Your task to perform on an android device: Show me popular games on the Play Store Image 0: 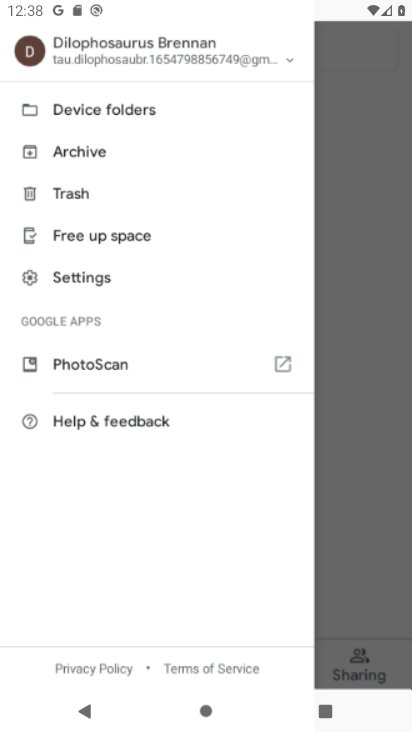
Step 0: drag from (395, 715) to (264, 130)
Your task to perform on an android device: Show me popular games on the Play Store Image 1: 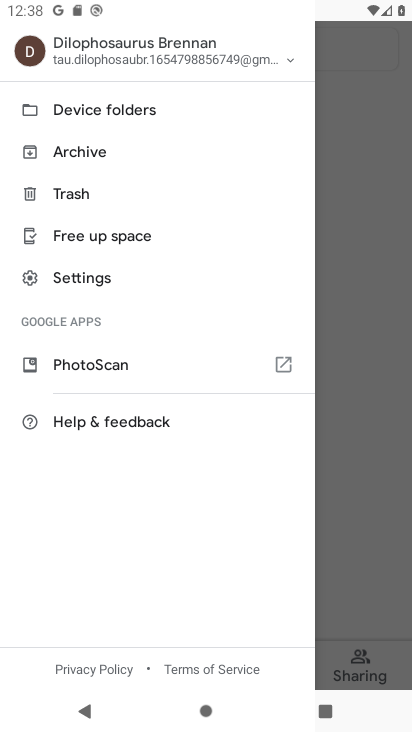
Step 1: press home button
Your task to perform on an android device: Show me popular games on the Play Store Image 2: 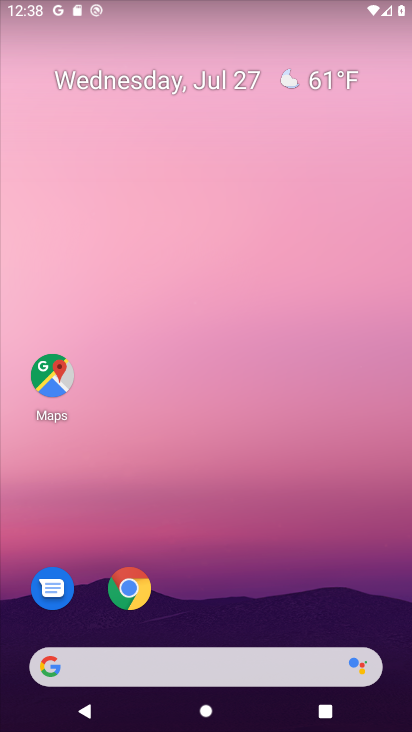
Step 2: drag from (404, 721) to (338, 189)
Your task to perform on an android device: Show me popular games on the Play Store Image 3: 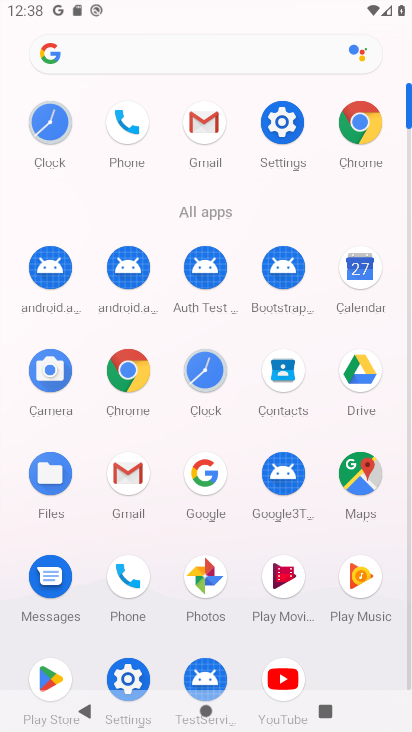
Step 3: click (45, 672)
Your task to perform on an android device: Show me popular games on the Play Store Image 4: 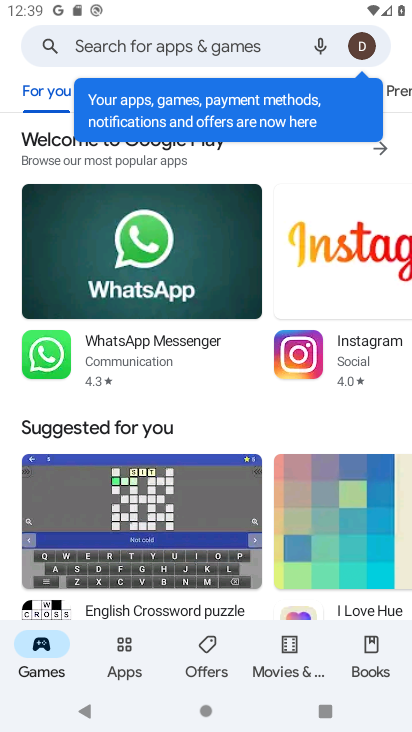
Step 4: click (246, 45)
Your task to perform on an android device: Show me popular games on the Play Store Image 5: 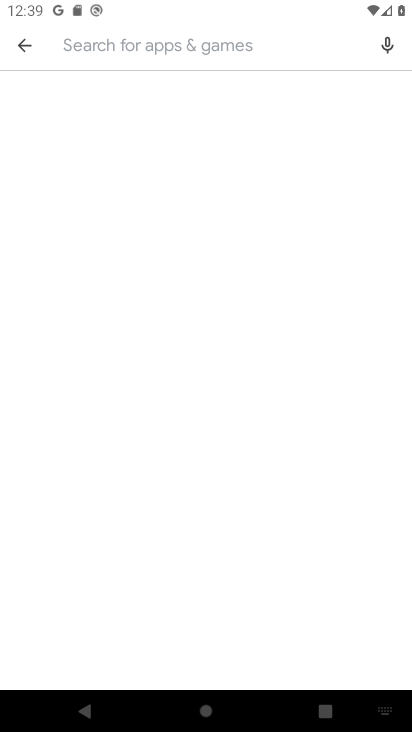
Step 5: type "popular games on the Play Store"
Your task to perform on an android device: Show me popular games on the Play Store Image 6: 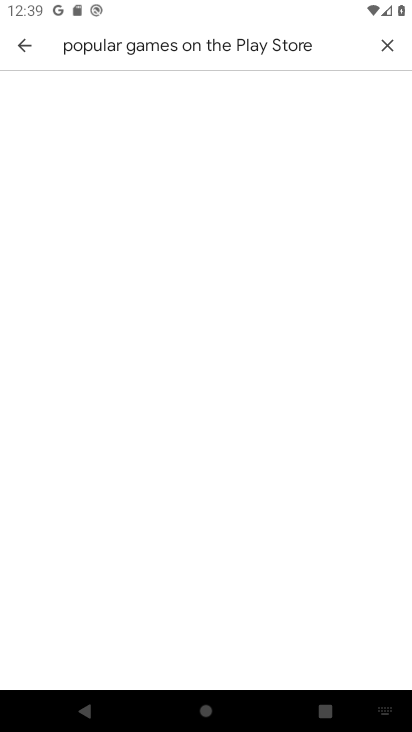
Step 6: task complete